Your task to perform on an android device: open app "DoorDash - Food Delivery" (install if not already installed) Image 0: 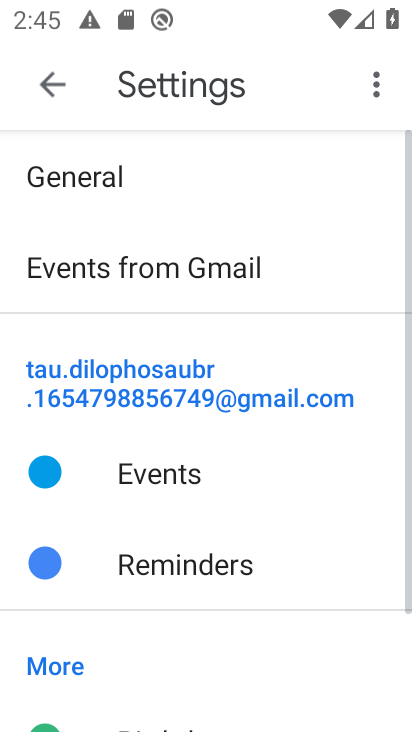
Step 0: press home button
Your task to perform on an android device: open app "DoorDash - Food Delivery" (install if not already installed) Image 1: 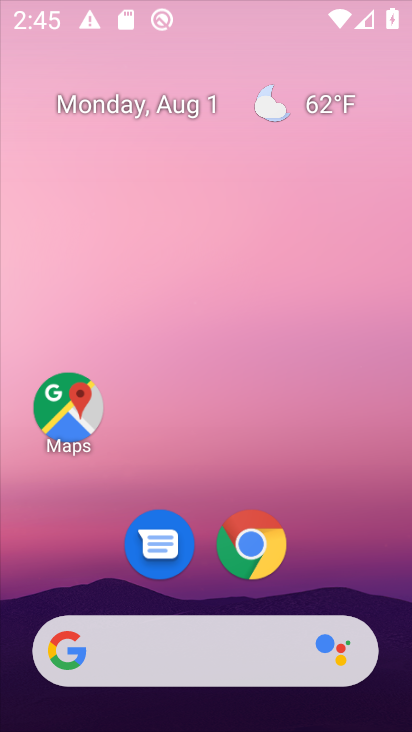
Step 1: drag from (387, 599) to (254, 39)
Your task to perform on an android device: open app "DoorDash - Food Delivery" (install if not already installed) Image 2: 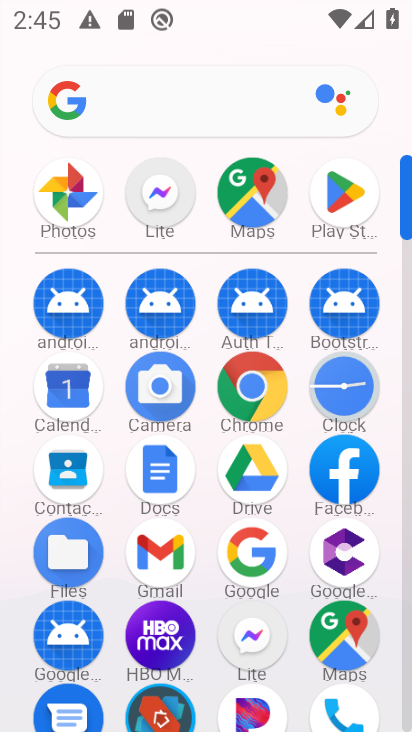
Step 2: click (343, 220)
Your task to perform on an android device: open app "DoorDash - Food Delivery" (install if not already installed) Image 3: 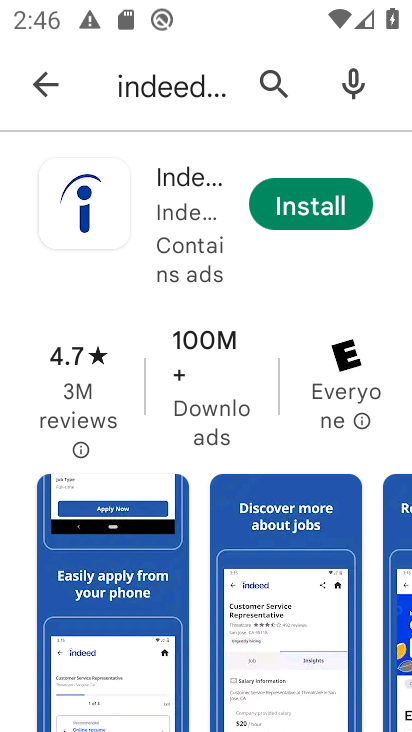
Step 3: press back button
Your task to perform on an android device: open app "DoorDash - Food Delivery" (install if not already installed) Image 4: 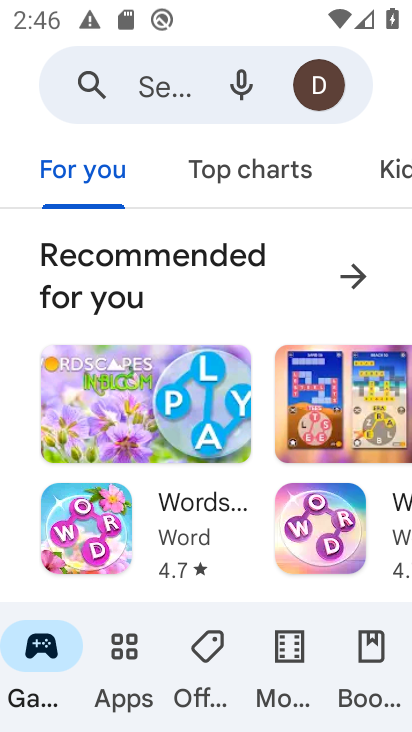
Step 4: click (137, 92)
Your task to perform on an android device: open app "DoorDash - Food Delivery" (install if not already installed) Image 5: 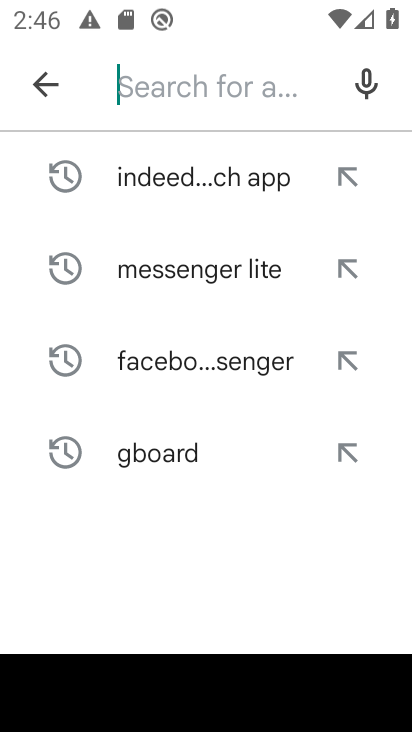
Step 5: type "DoorDash - Food Delivery"
Your task to perform on an android device: open app "DoorDash - Food Delivery" (install if not already installed) Image 6: 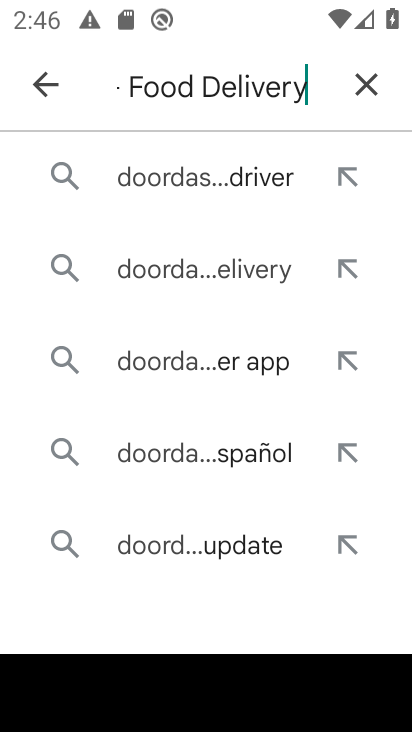
Step 6: click (170, 179)
Your task to perform on an android device: open app "DoorDash - Food Delivery" (install if not already installed) Image 7: 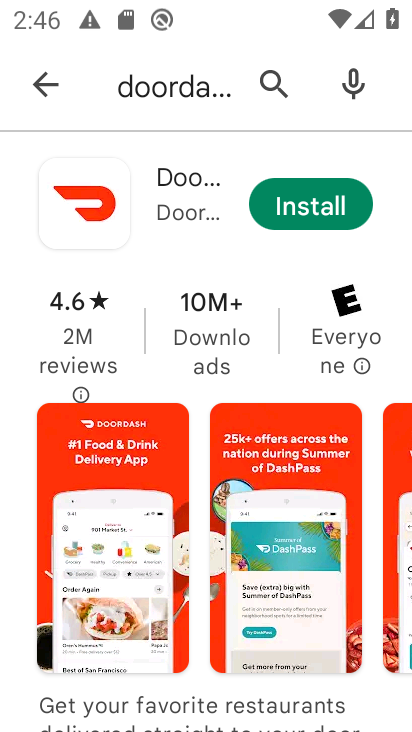
Step 7: task complete